Your task to perform on an android device: show emergency info Image 0: 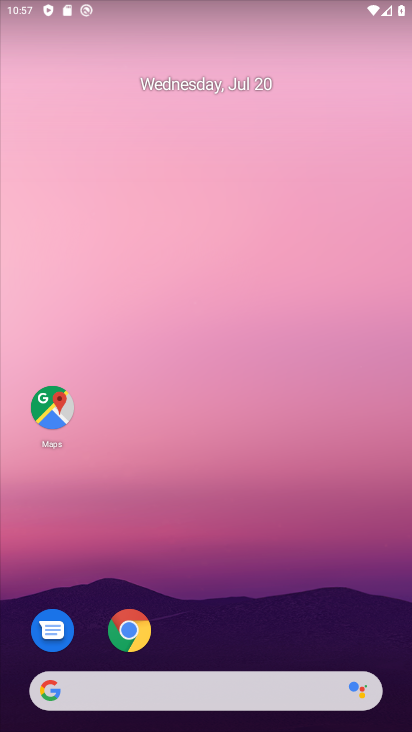
Step 0: drag from (258, 701) to (239, 62)
Your task to perform on an android device: show emergency info Image 1: 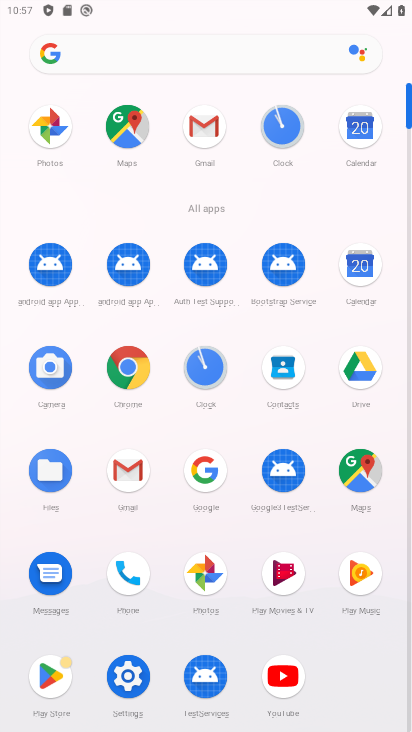
Step 1: click (141, 663)
Your task to perform on an android device: show emergency info Image 2: 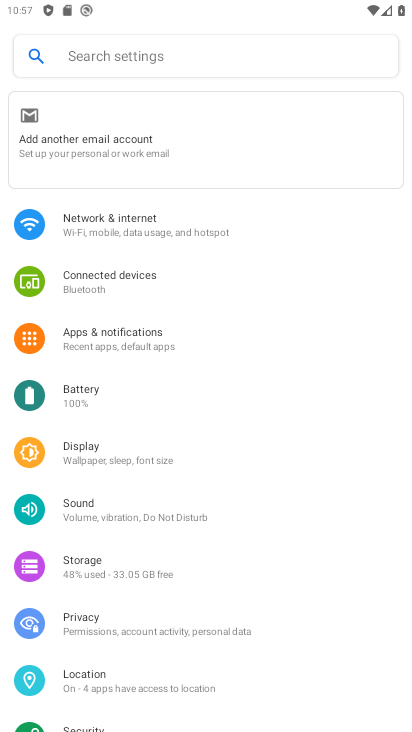
Step 2: click (105, 59)
Your task to perform on an android device: show emergency info Image 3: 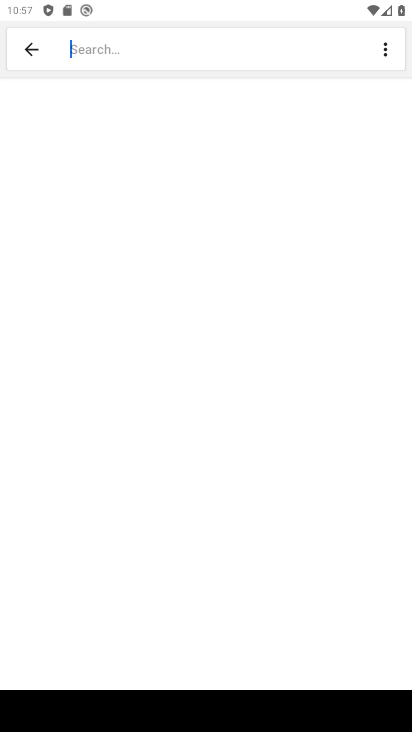
Step 3: drag from (353, 704) to (407, 494)
Your task to perform on an android device: show emergency info Image 4: 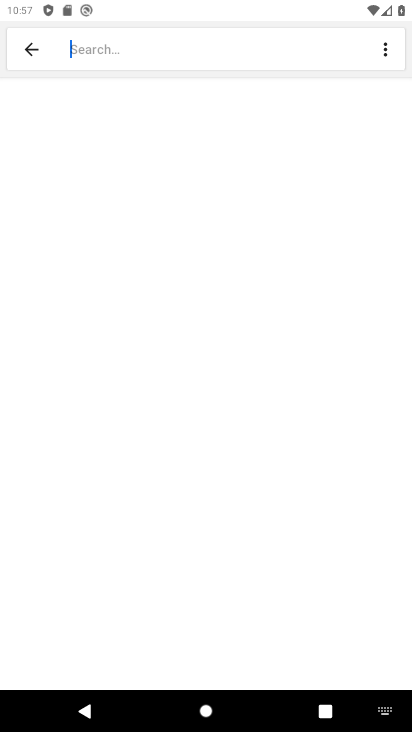
Step 4: click (382, 720)
Your task to perform on an android device: show emergency info Image 5: 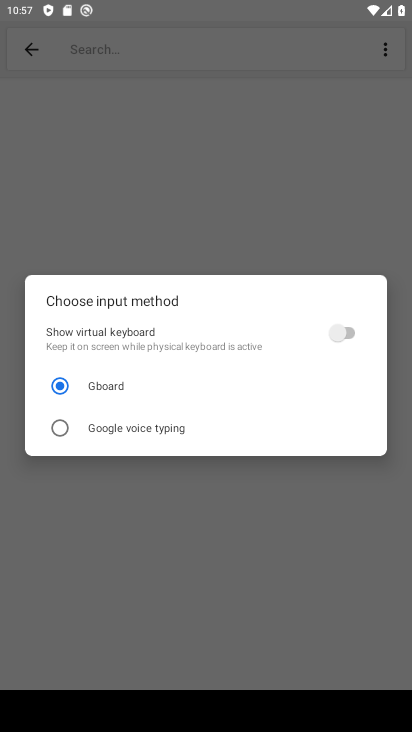
Step 5: click (339, 334)
Your task to perform on an android device: show emergency info Image 6: 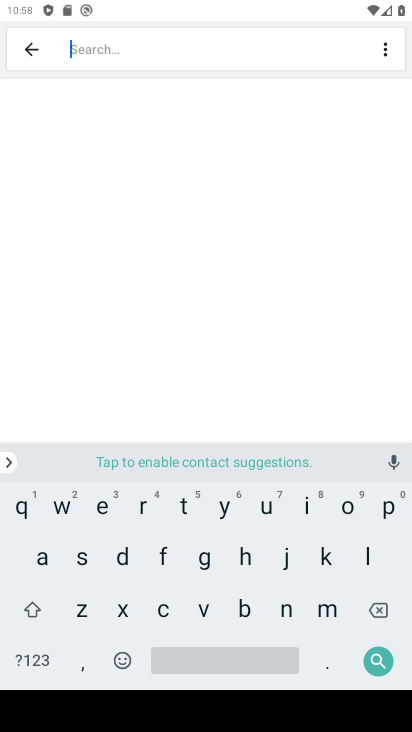
Step 6: click (99, 506)
Your task to perform on an android device: show emergency info Image 7: 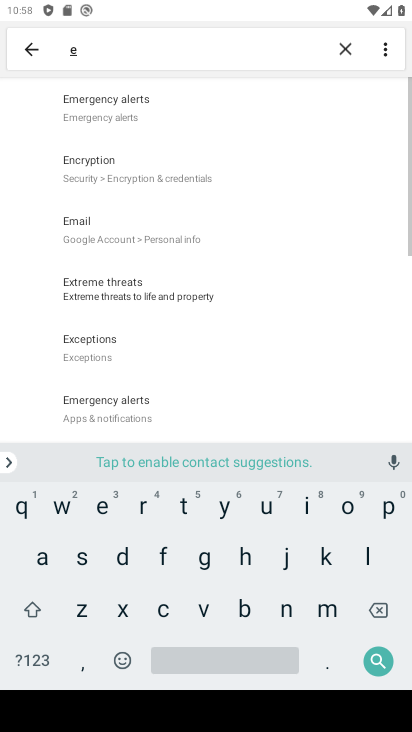
Step 7: click (331, 614)
Your task to perform on an android device: show emergency info Image 8: 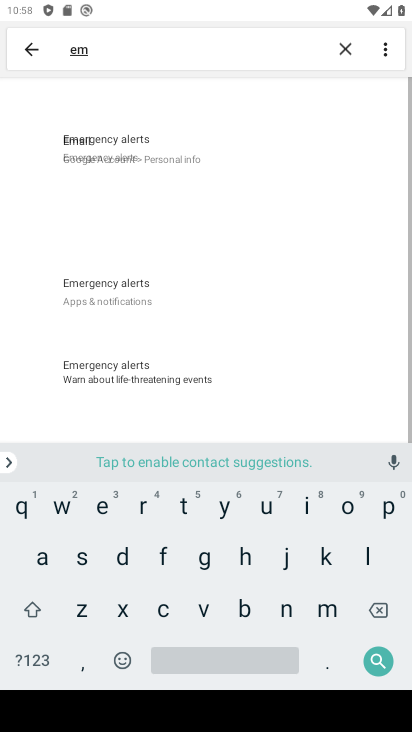
Step 8: click (99, 501)
Your task to perform on an android device: show emergency info Image 9: 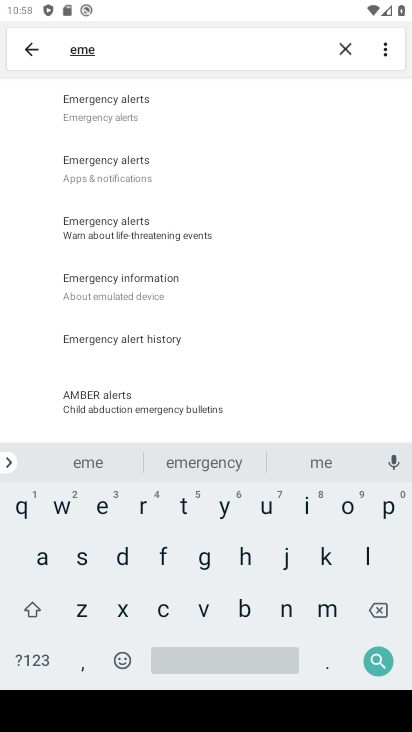
Step 9: click (184, 473)
Your task to perform on an android device: show emergency info Image 10: 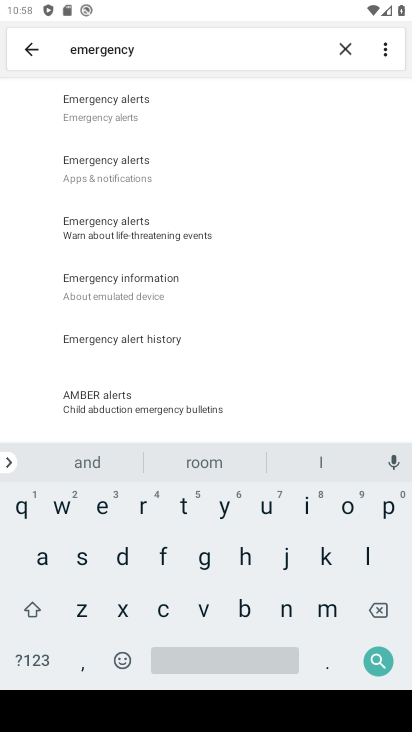
Step 10: click (301, 498)
Your task to perform on an android device: show emergency info Image 11: 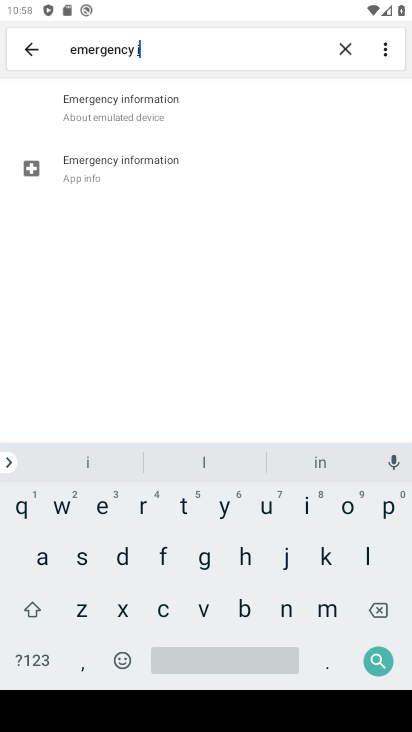
Step 11: click (142, 109)
Your task to perform on an android device: show emergency info Image 12: 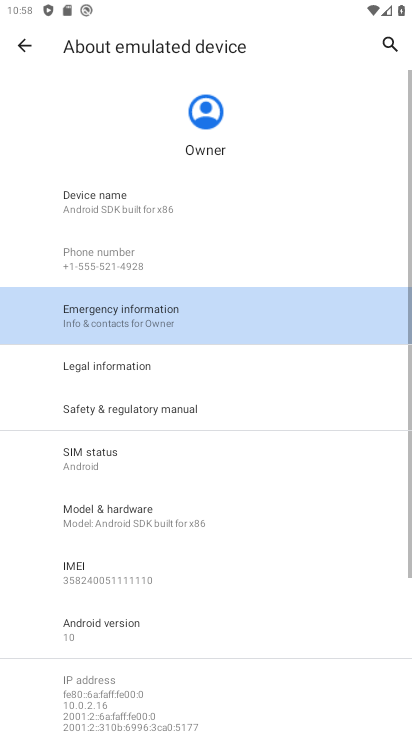
Step 12: click (134, 313)
Your task to perform on an android device: show emergency info Image 13: 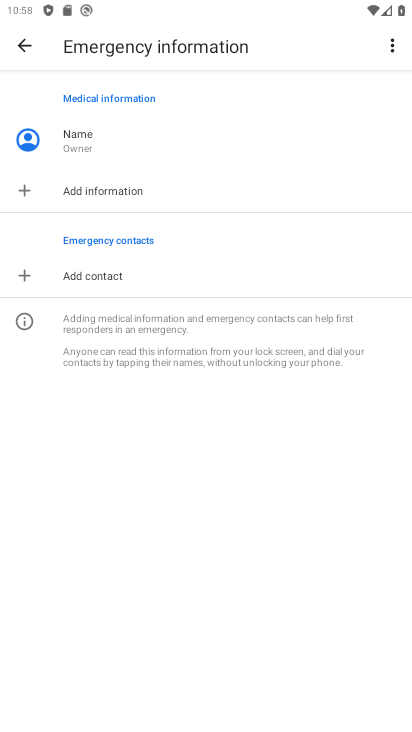
Step 13: task complete